Your task to perform on an android device: What's the weather going to be this weekend? Image 0: 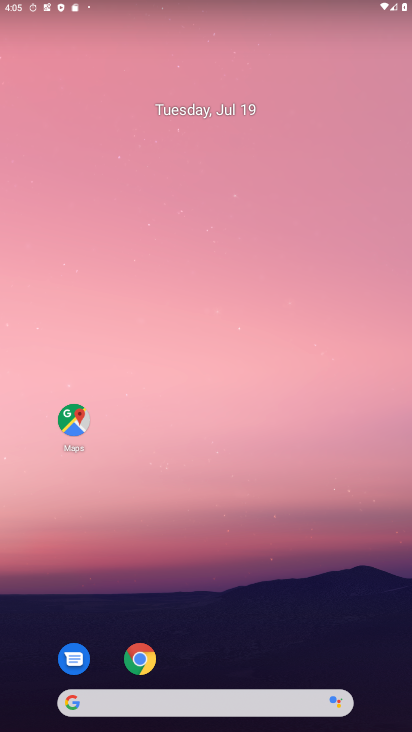
Step 0: drag from (294, 571) to (277, 51)
Your task to perform on an android device: What's the weather going to be this weekend? Image 1: 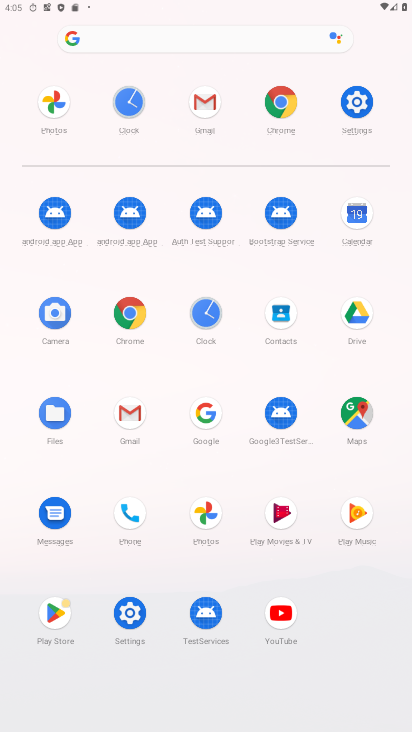
Step 1: click (205, 418)
Your task to perform on an android device: What's the weather going to be this weekend? Image 2: 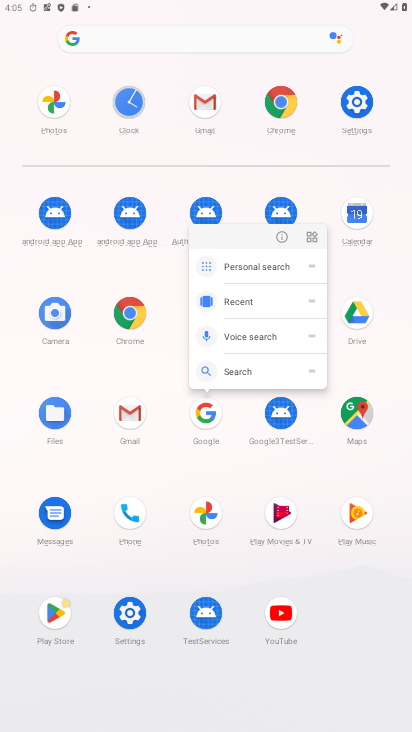
Step 2: click (204, 415)
Your task to perform on an android device: What's the weather going to be this weekend? Image 3: 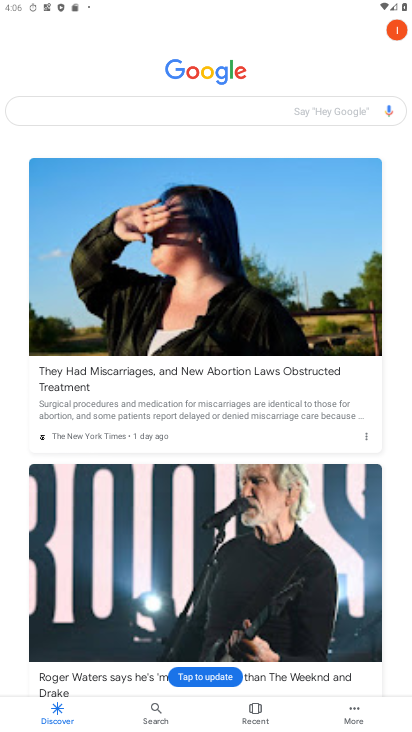
Step 3: click (200, 100)
Your task to perform on an android device: What's the weather going to be this weekend? Image 4: 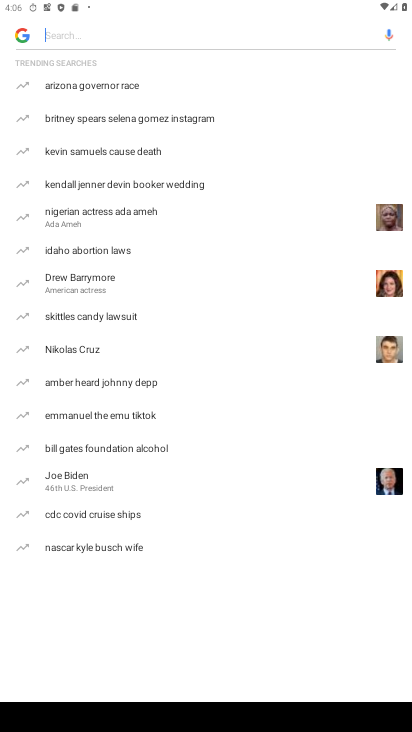
Step 4: type "weather"
Your task to perform on an android device: What's the weather going to be this weekend? Image 5: 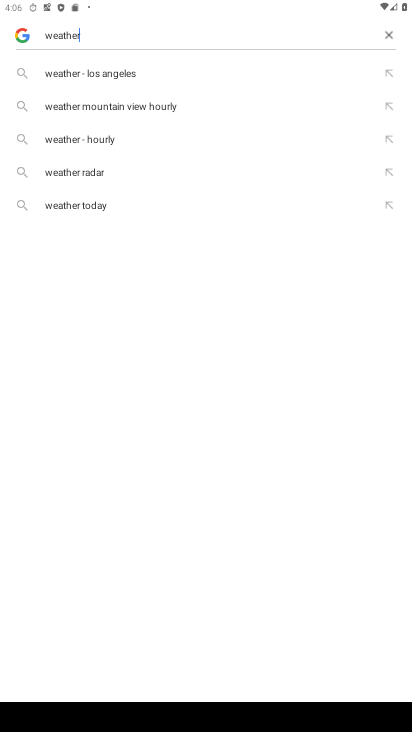
Step 5: press enter
Your task to perform on an android device: What's the weather going to be this weekend? Image 6: 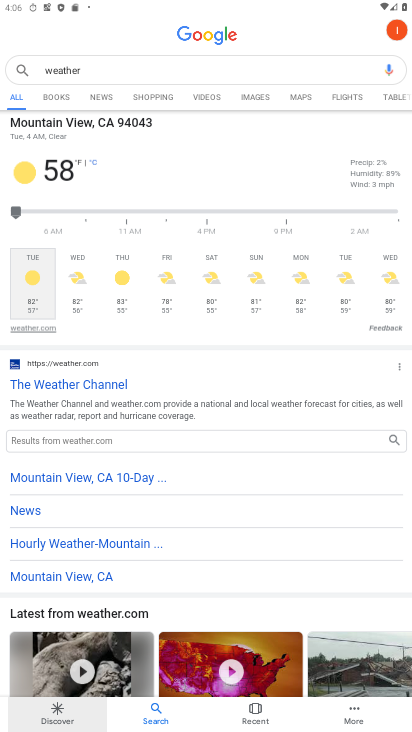
Step 6: task complete